Your task to perform on an android device: Go to Google maps Image 0: 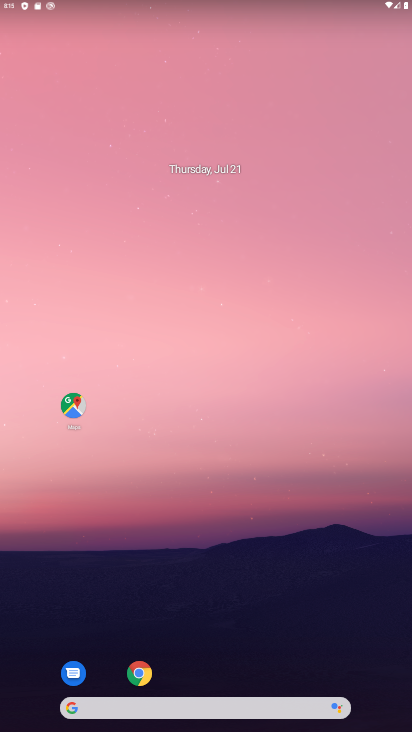
Step 0: drag from (205, 730) to (138, 103)
Your task to perform on an android device: Go to Google maps Image 1: 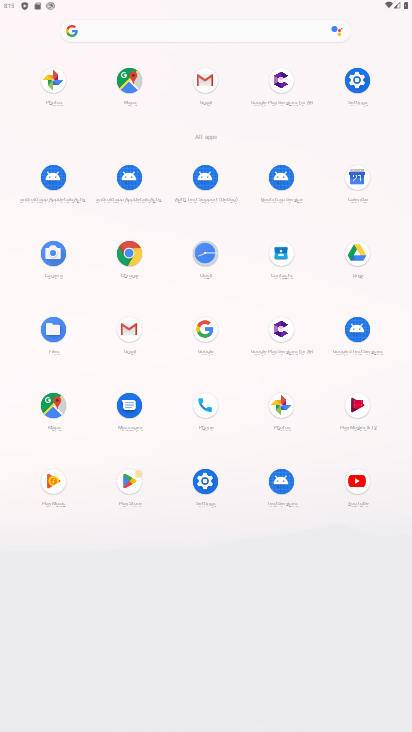
Step 1: click (48, 405)
Your task to perform on an android device: Go to Google maps Image 2: 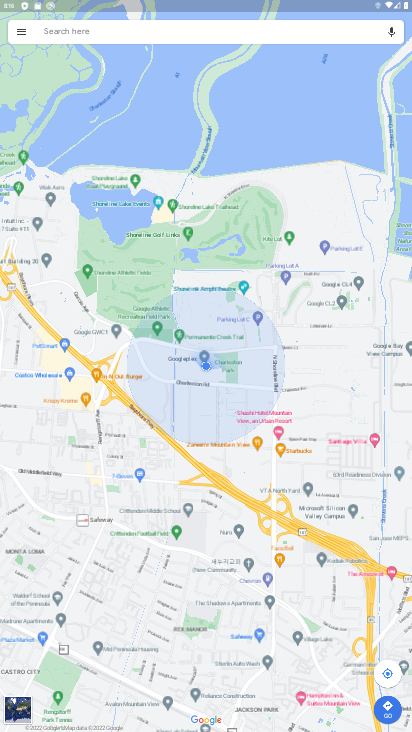
Step 2: task complete